Your task to perform on an android device: Show the shopping cart on walmart. Image 0: 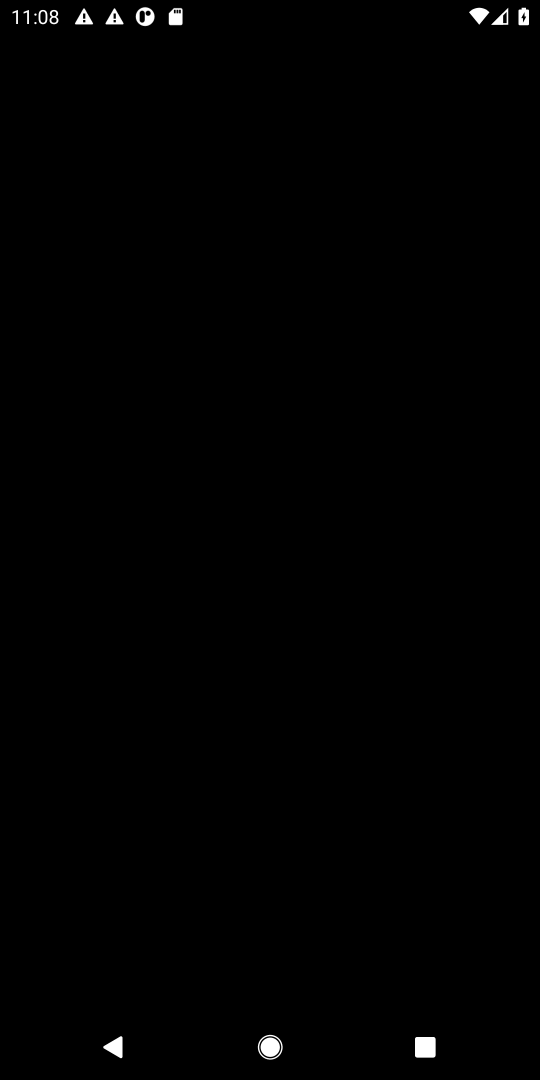
Step 0: press home button
Your task to perform on an android device: Show the shopping cart on walmart. Image 1: 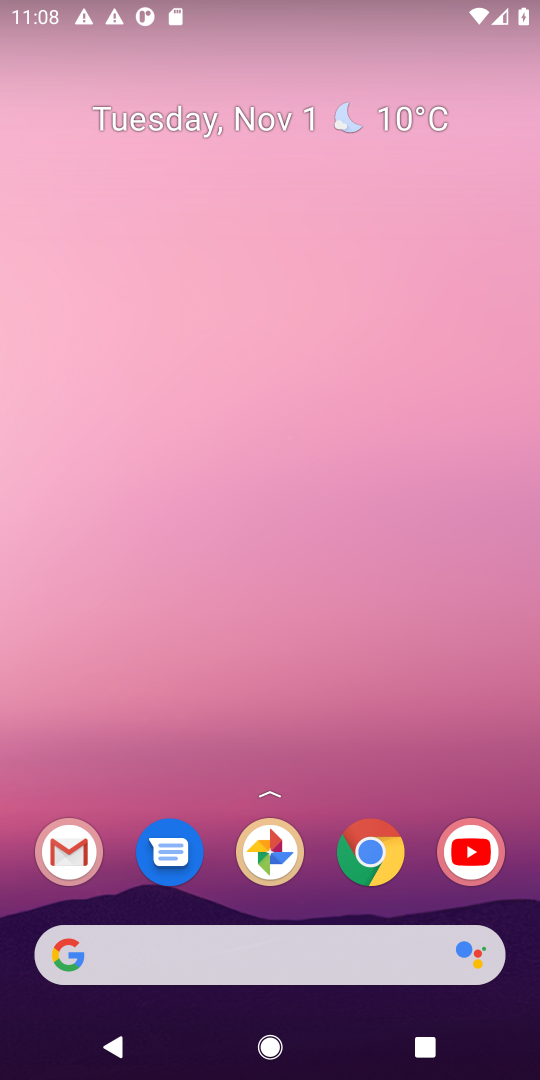
Step 1: click (66, 956)
Your task to perform on an android device: Show the shopping cart on walmart. Image 2: 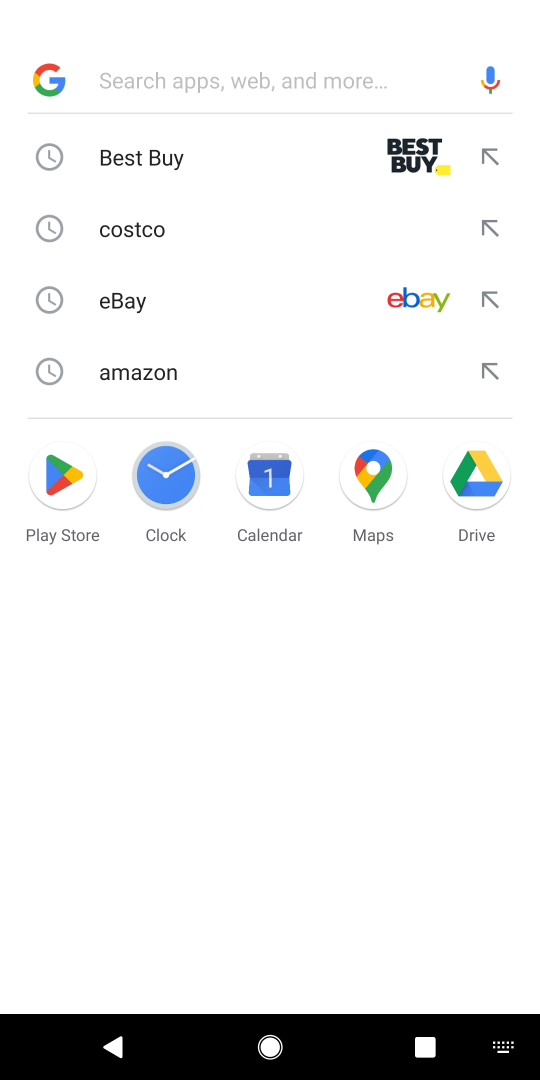
Step 2: type " walmart"
Your task to perform on an android device: Show the shopping cart on walmart. Image 3: 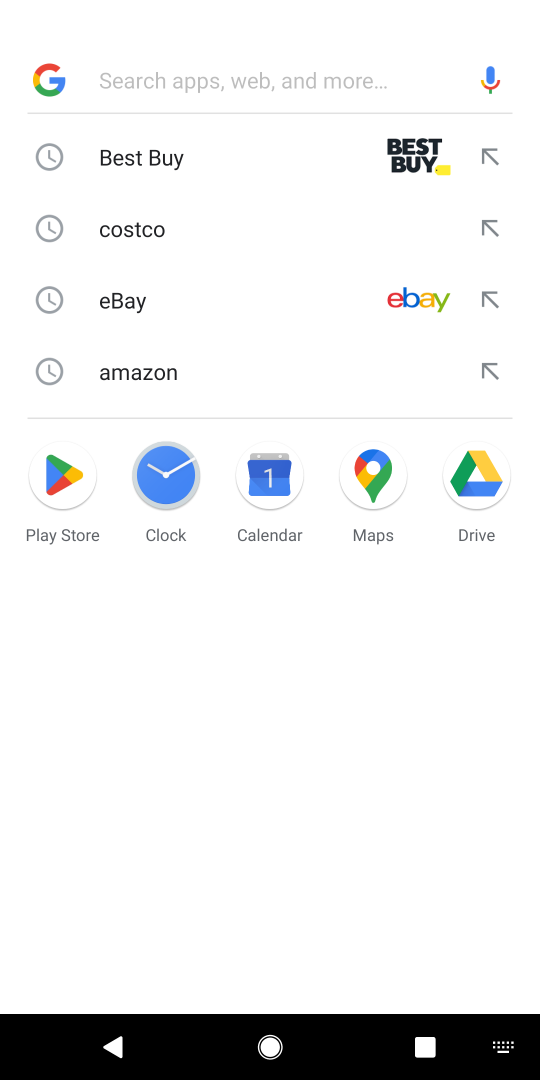
Step 3: click (99, 78)
Your task to perform on an android device: Show the shopping cart on walmart. Image 4: 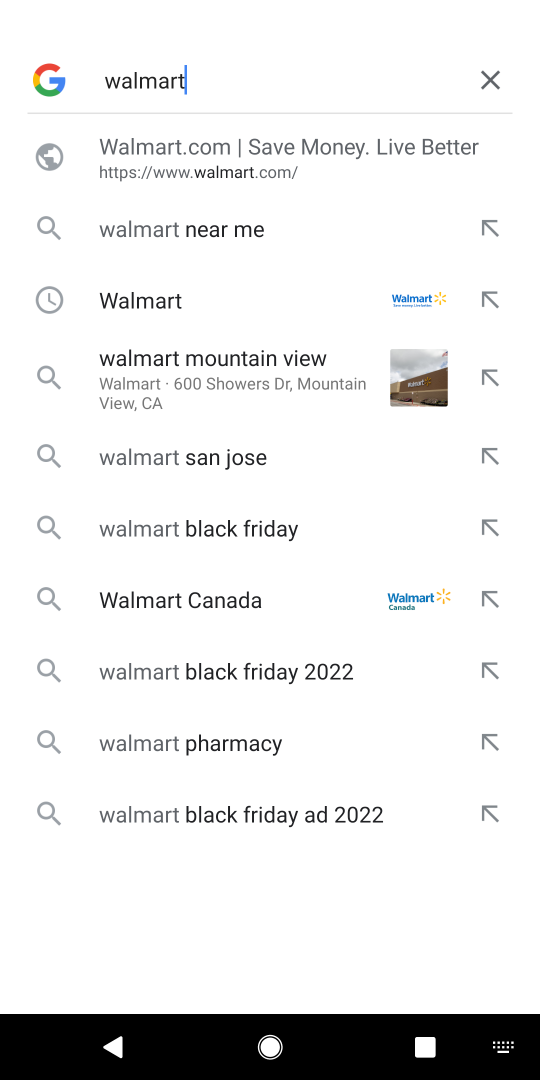
Step 4: press enter
Your task to perform on an android device: Show the shopping cart on walmart. Image 5: 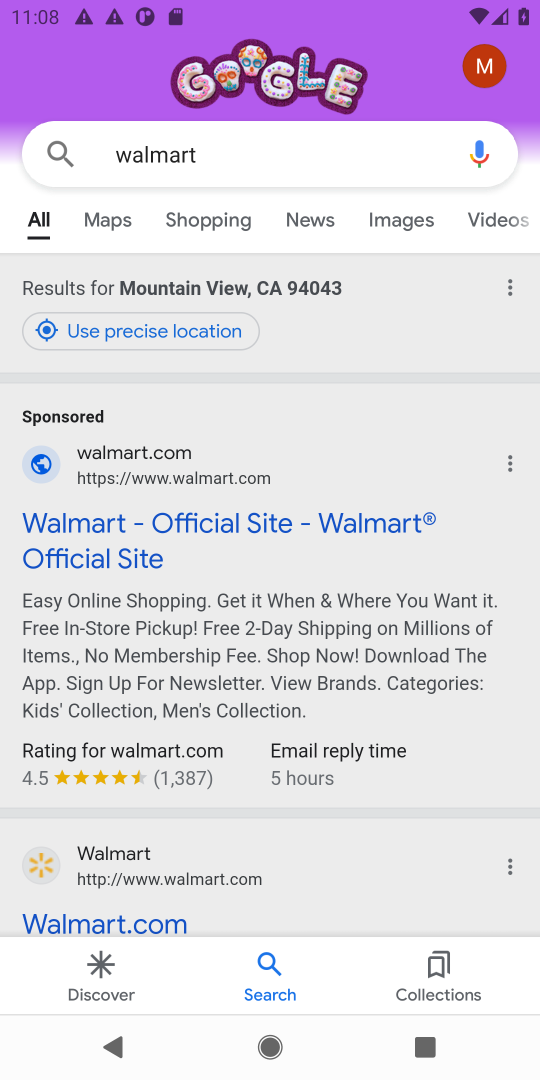
Step 5: click (129, 923)
Your task to perform on an android device: Show the shopping cart on walmart. Image 6: 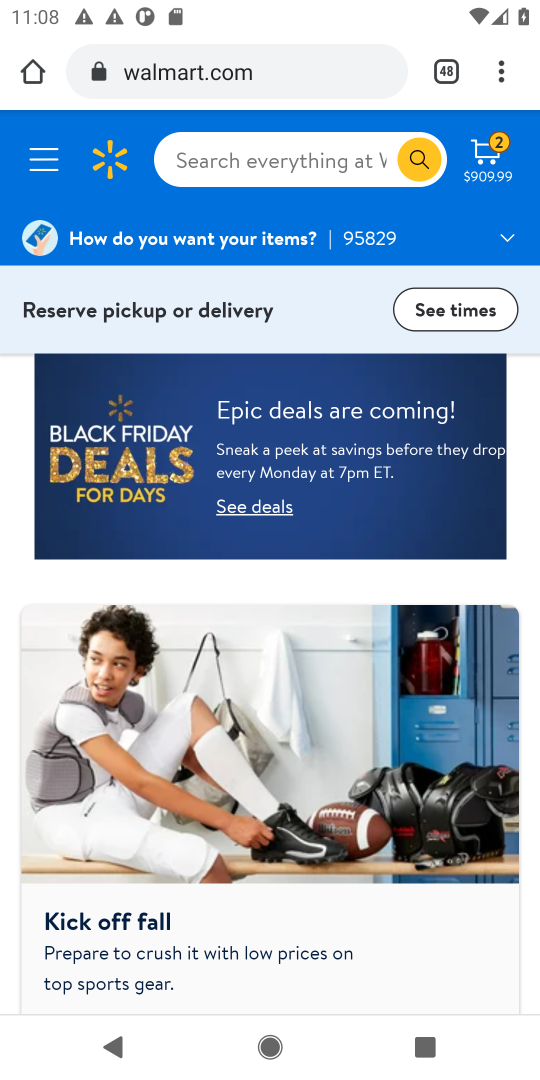
Step 6: click (488, 158)
Your task to perform on an android device: Show the shopping cart on walmart. Image 7: 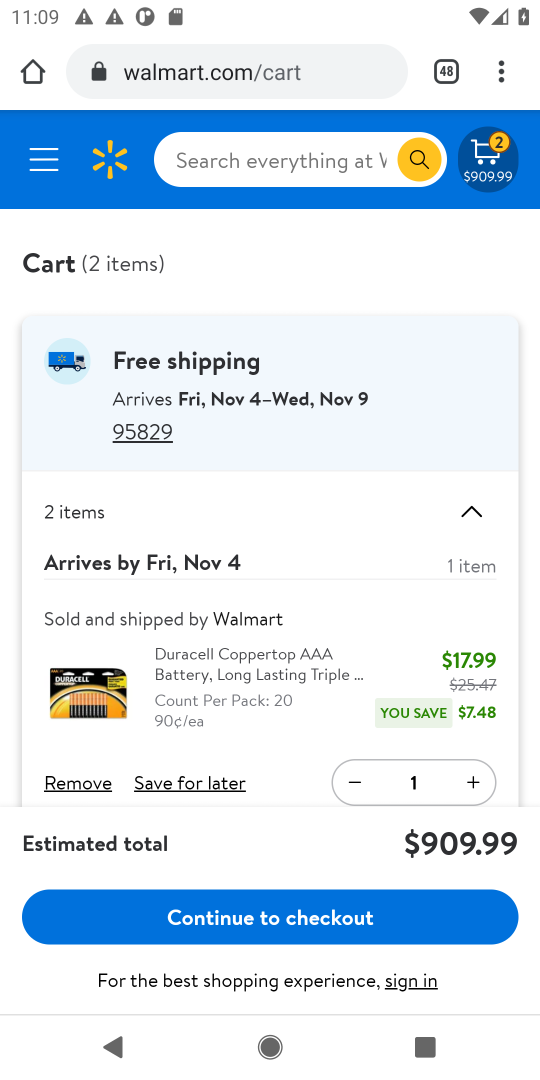
Step 7: task complete